Your task to perform on an android device: Go to Google maps Image 0: 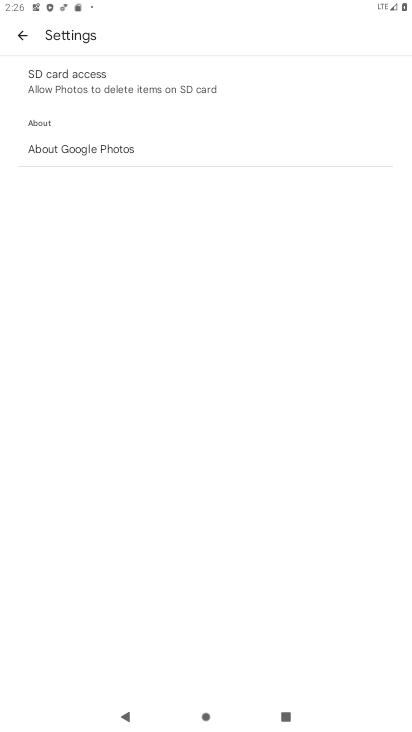
Step 0: drag from (224, 392) to (238, 110)
Your task to perform on an android device: Go to Google maps Image 1: 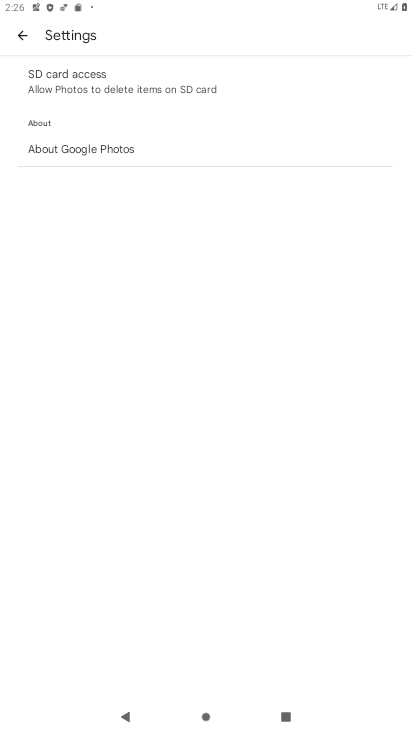
Step 1: press home button
Your task to perform on an android device: Go to Google maps Image 2: 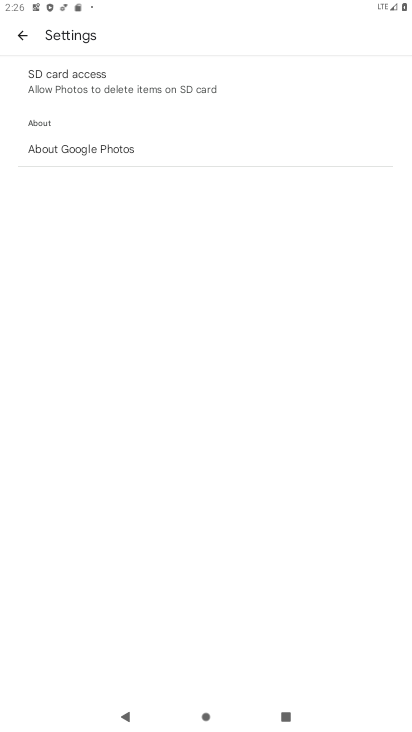
Step 2: press home button
Your task to perform on an android device: Go to Google maps Image 3: 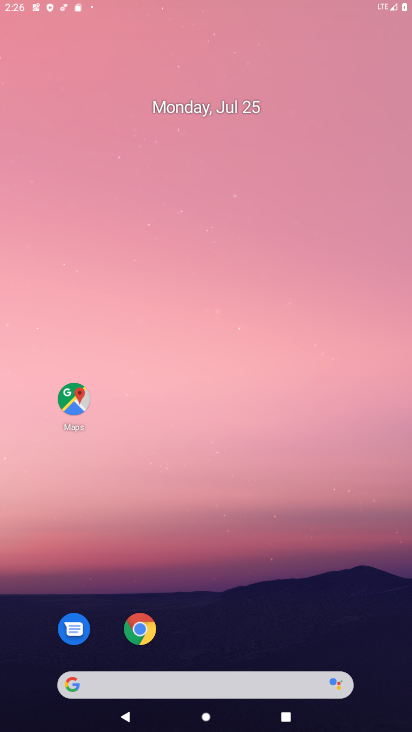
Step 3: drag from (210, 564) to (209, 2)
Your task to perform on an android device: Go to Google maps Image 4: 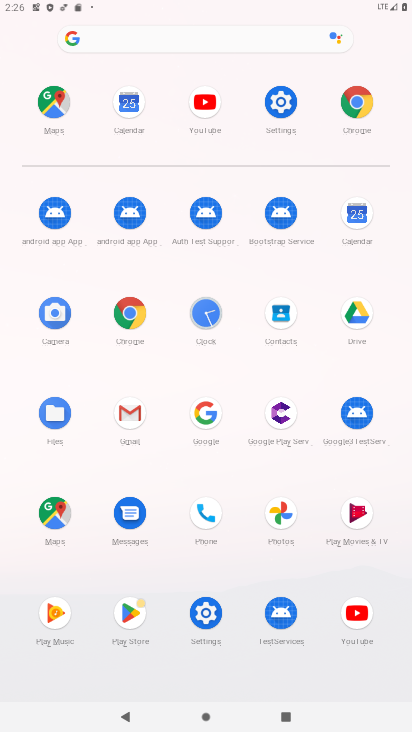
Step 4: click (51, 518)
Your task to perform on an android device: Go to Google maps Image 5: 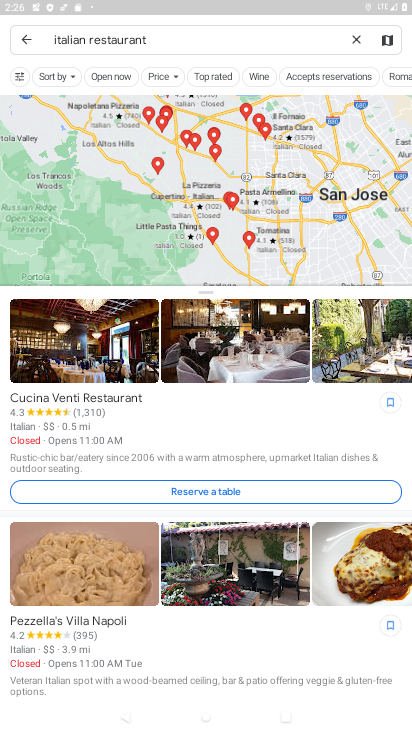
Step 5: click (359, 37)
Your task to perform on an android device: Go to Google maps Image 6: 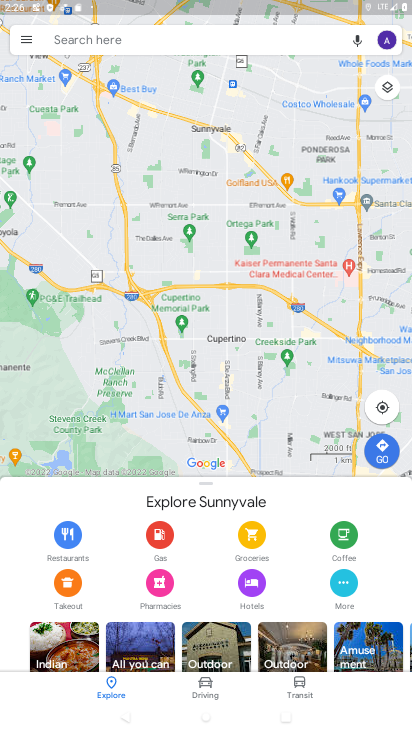
Step 6: click (70, 47)
Your task to perform on an android device: Go to Google maps Image 7: 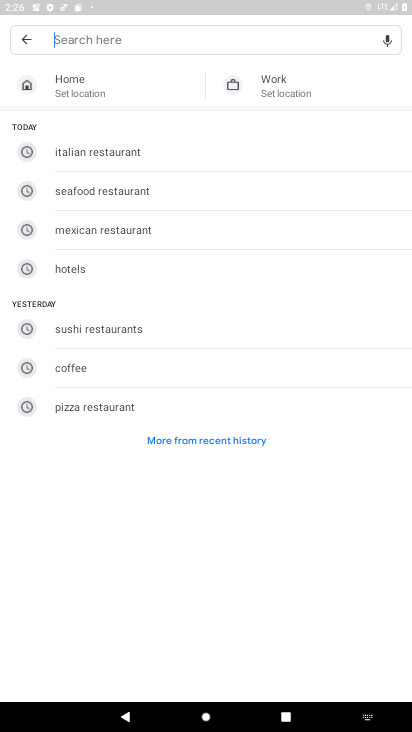
Step 7: type "google map"
Your task to perform on an android device: Go to Google maps Image 8: 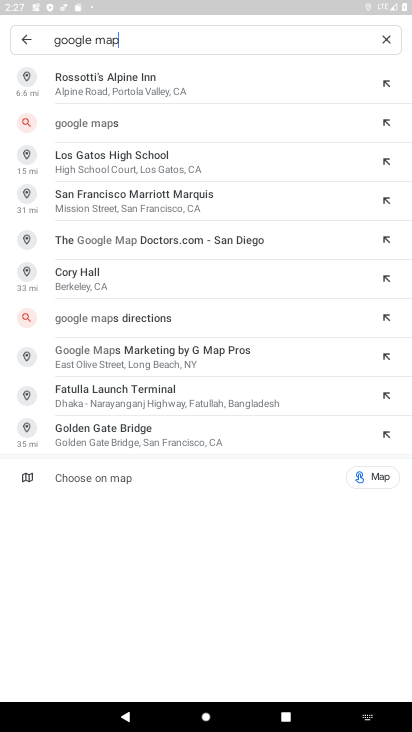
Step 8: click (68, 131)
Your task to perform on an android device: Go to Google maps Image 9: 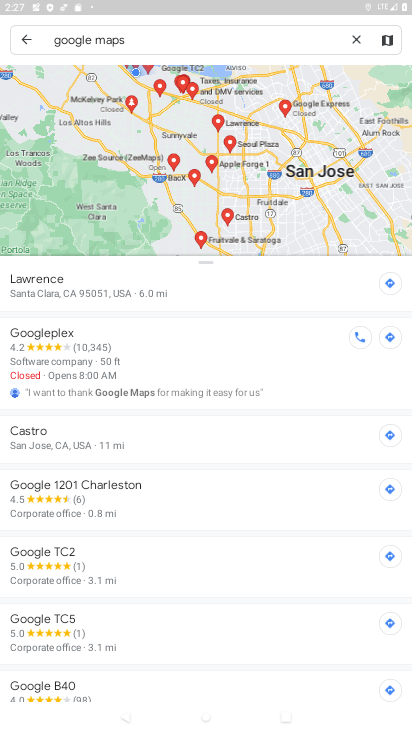
Step 9: task complete